Your task to perform on an android device: Open notification settings Image 0: 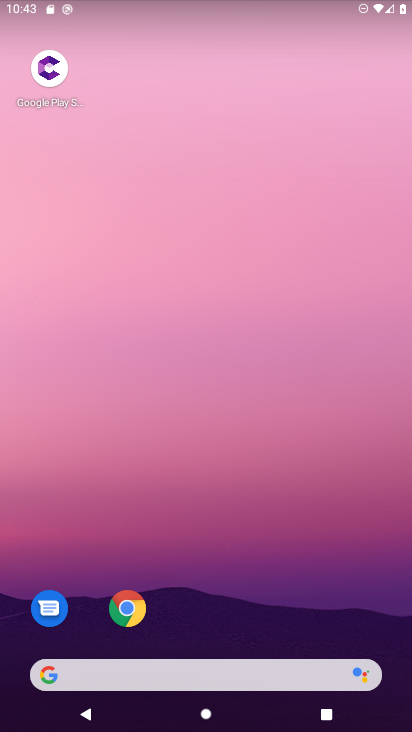
Step 0: drag from (367, 585) to (294, 155)
Your task to perform on an android device: Open notification settings Image 1: 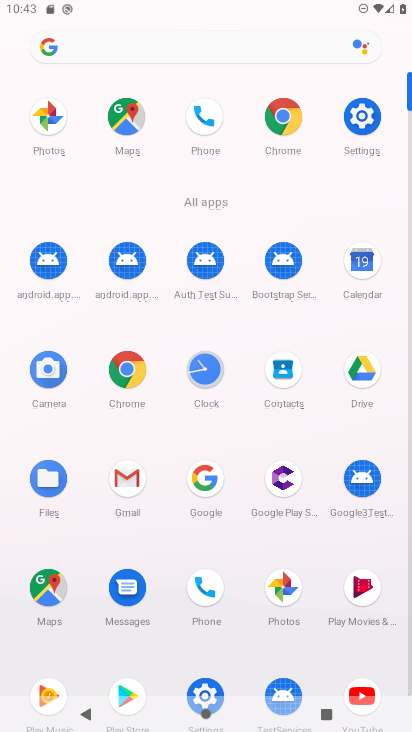
Step 1: click (347, 120)
Your task to perform on an android device: Open notification settings Image 2: 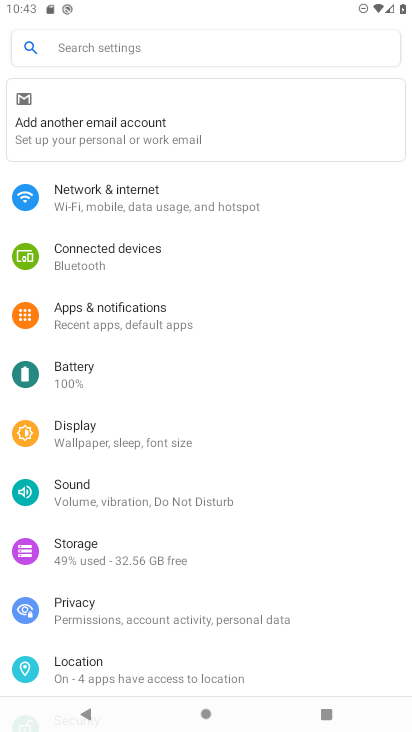
Step 2: click (86, 333)
Your task to perform on an android device: Open notification settings Image 3: 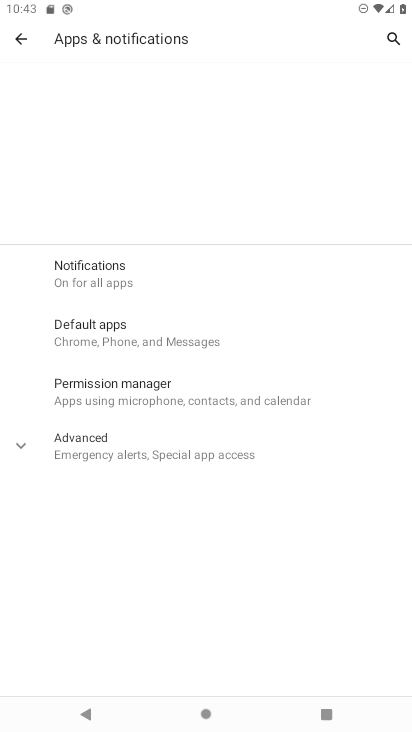
Step 3: click (84, 312)
Your task to perform on an android device: Open notification settings Image 4: 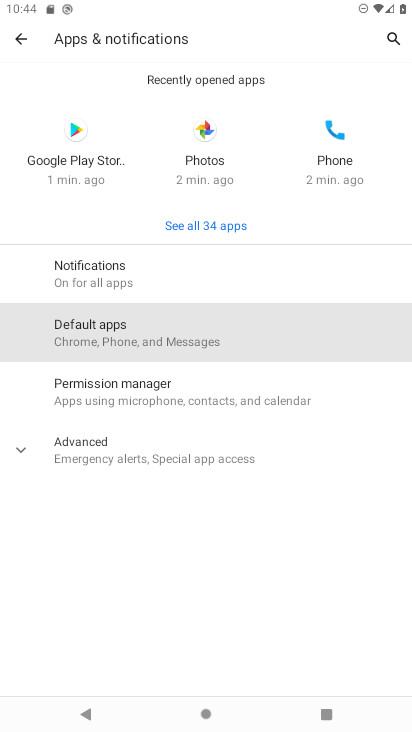
Step 4: click (82, 291)
Your task to perform on an android device: Open notification settings Image 5: 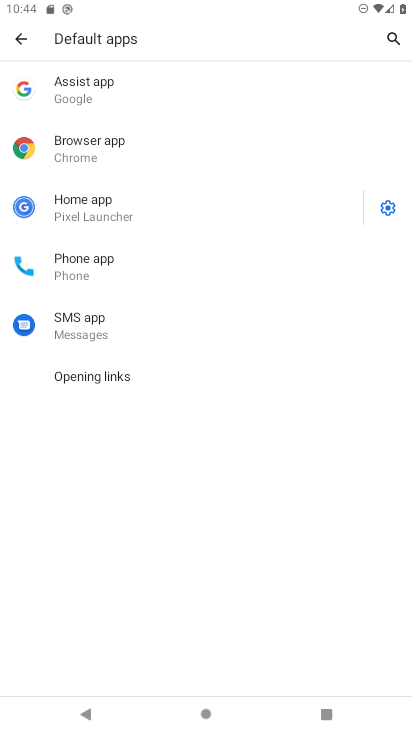
Step 5: click (23, 38)
Your task to perform on an android device: Open notification settings Image 6: 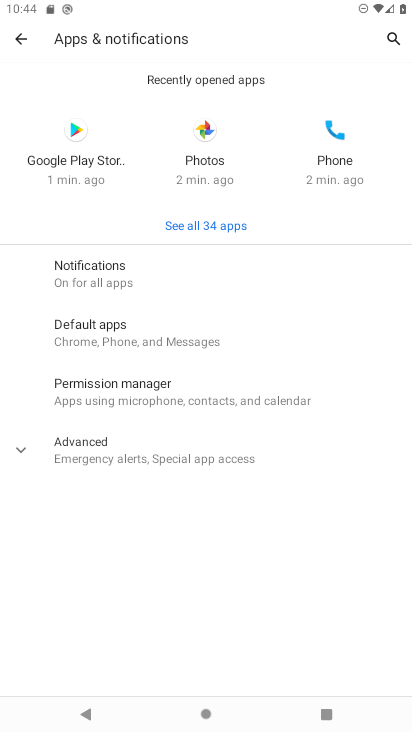
Step 6: click (103, 280)
Your task to perform on an android device: Open notification settings Image 7: 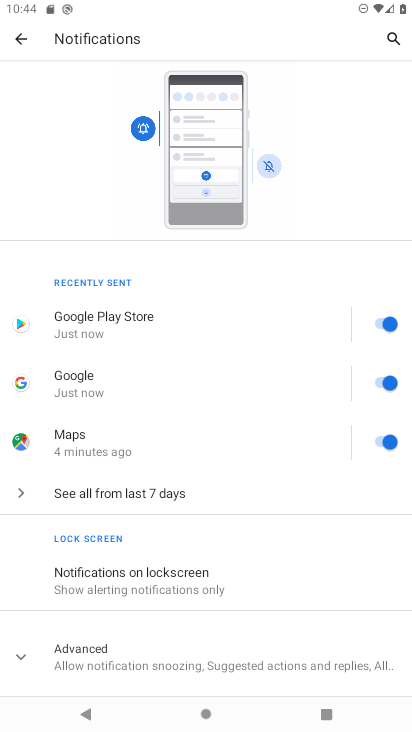
Step 7: task complete